Your task to perform on an android device: clear all cookies in the chrome app Image 0: 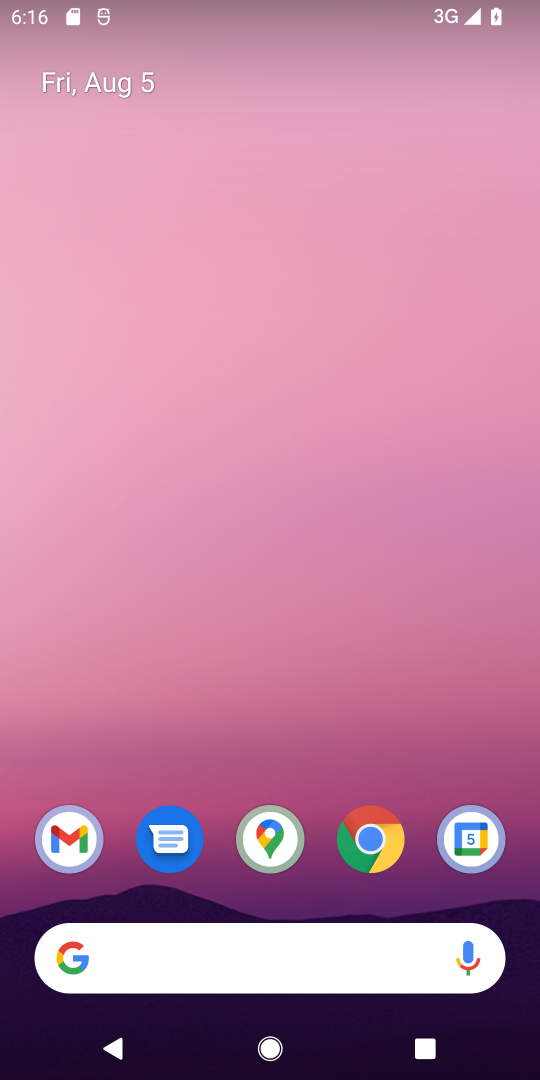
Step 0: click (376, 847)
Your task to perform on an android device: clear all cookies in the chrome app Image 1: 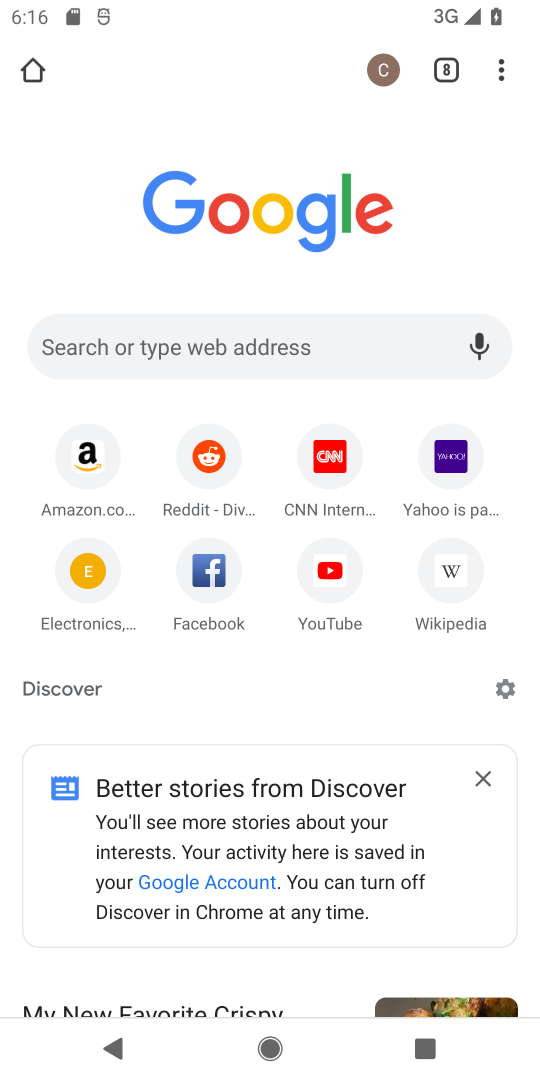
Step 1: drag from (493, 65) to (305, 295)
Your task to perform on an android device: clear all cookies in the chrome app Image 2: 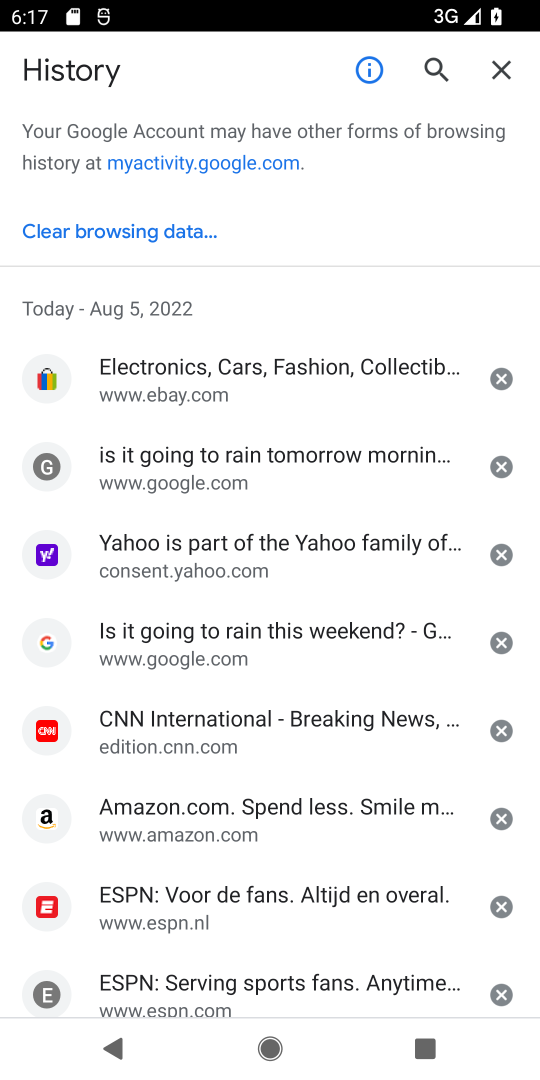
Step 2: click (183, 224)
Your task to perform on an android device: clear all cookies in the chrome app Image 3: 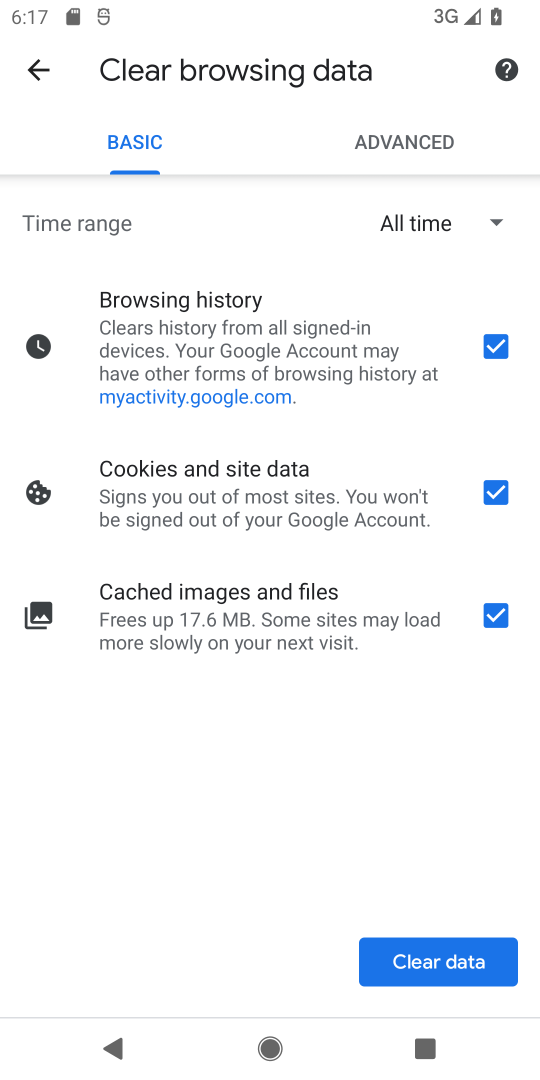
Step 3: click (445, 948)
Your task to perform on an android device: clear all cookies in the chrome app Image 4: 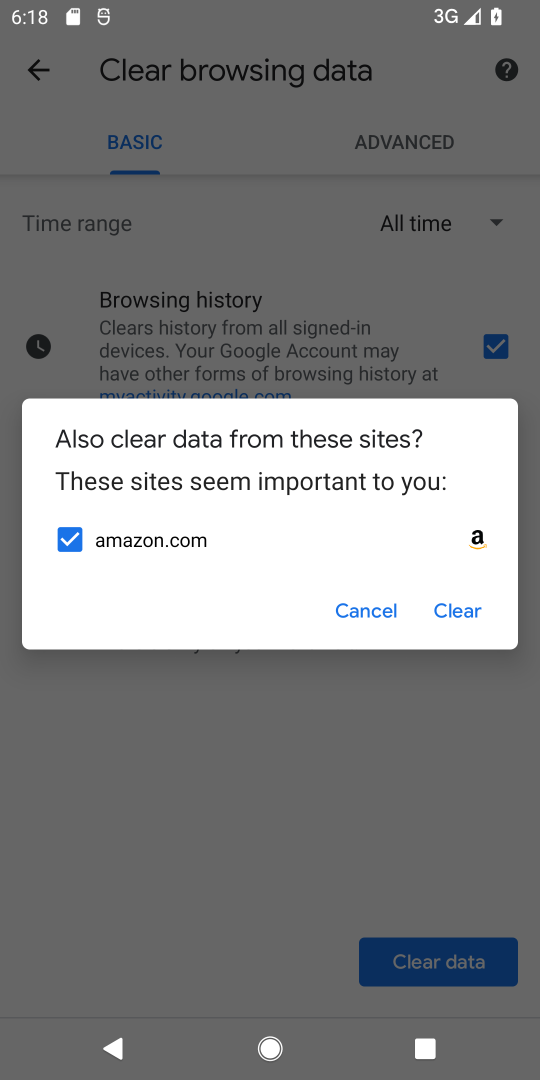
Step 4: click (459, 601)
Your task to perform on an android device: clear all cookies in the chrome app Image 5: 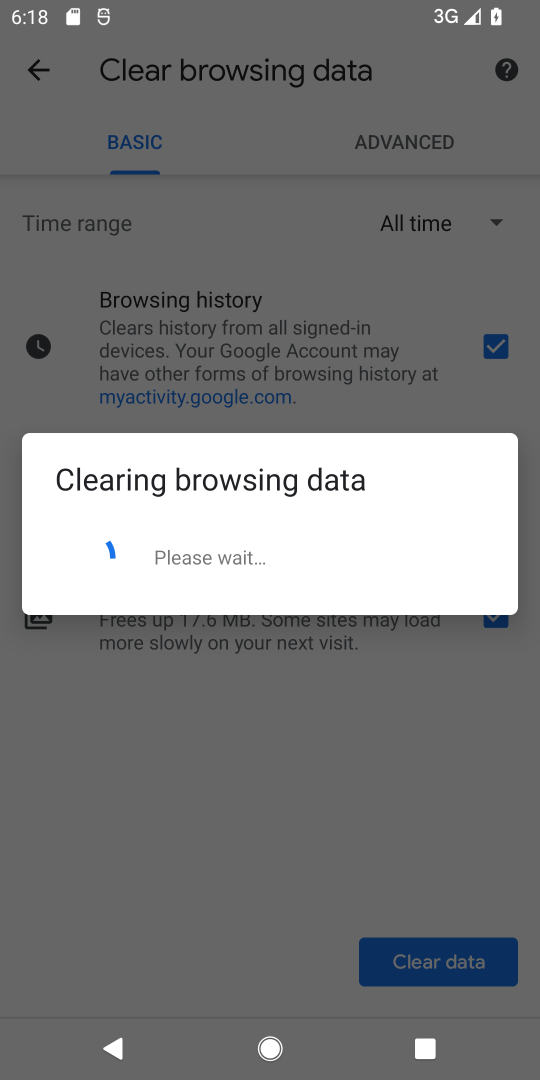
Step 5: task complete